Your task to perform on an android device: delete a single message in the gmail app Image 0: 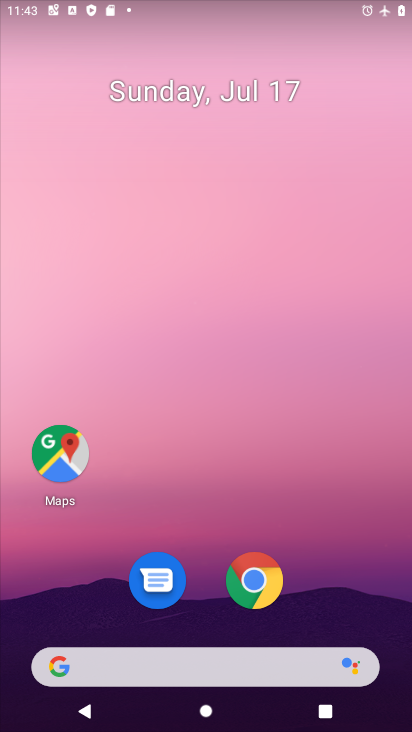
Step 0: press home button
Your task to perform on an android device: delete a single message in the gmail app Image 1: 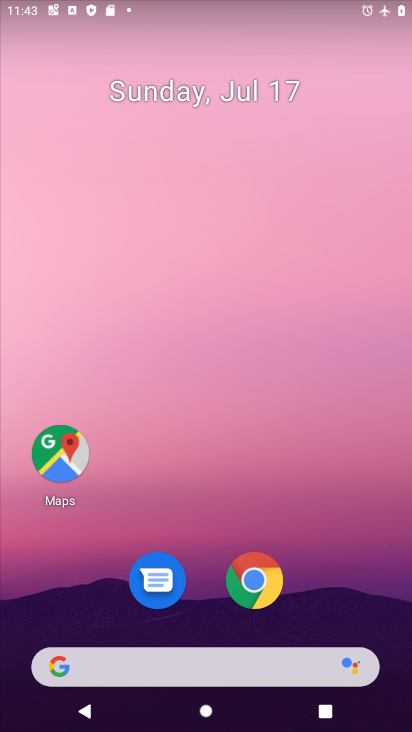
Step 1: drag from (238, 641) to (316, 198)
Your task to perform on an android device: delete a single message in the gmail app Image 2: 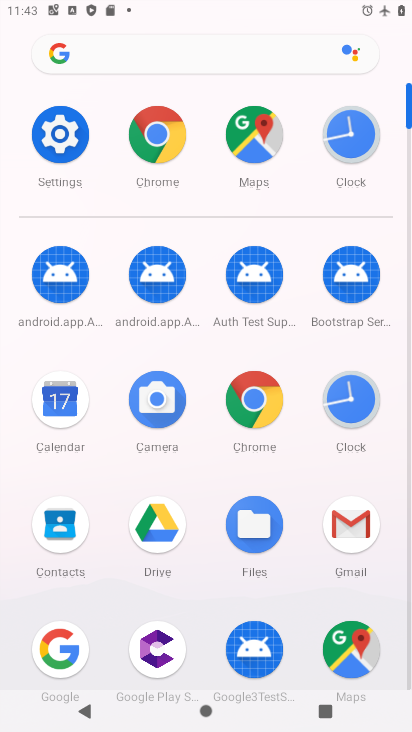
Step 2: click (365, 544)
Your task to perform on an android device: delete a single message in the gmail app Image 3: 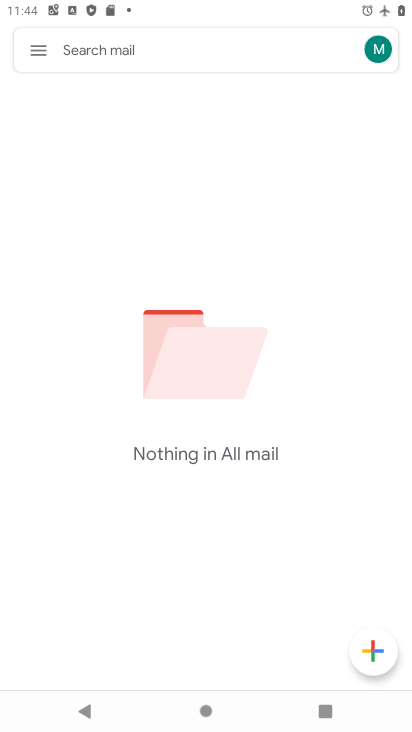
Step 3: click (32, 59)
Your task to perform on an android device: delete a single message in the gmail app Image 4: 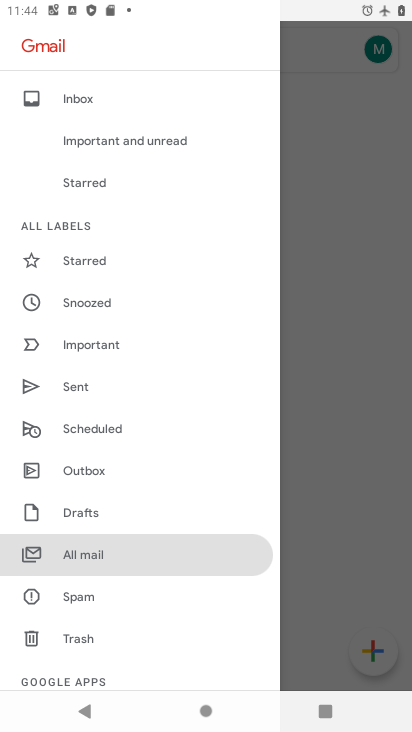
Step 4: click (70, 554)
Your task to perform on an android device: delete a single message in the gmail app Image 5: 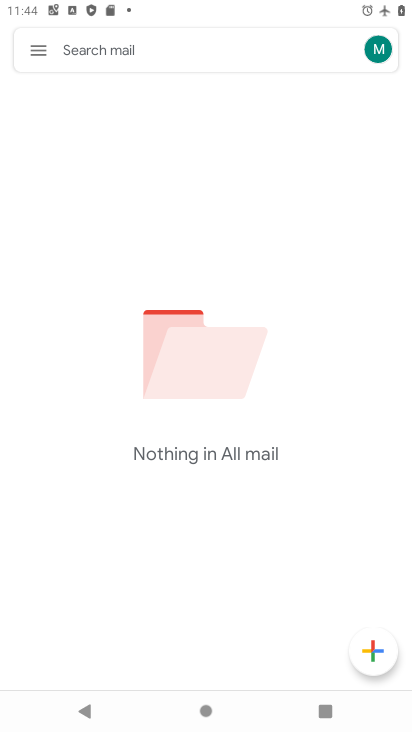
Step 5: task complete